Your task to perform on an android device: Open the calendar and show me this week's events Image 0: 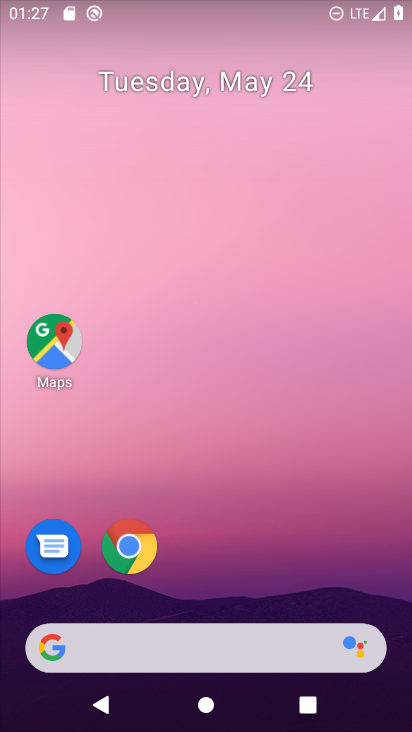
Step 0: drag from (271, 624) to (287, 57)
Your task to perform on an android device: Open the calendar and show me this week's events Image 1: 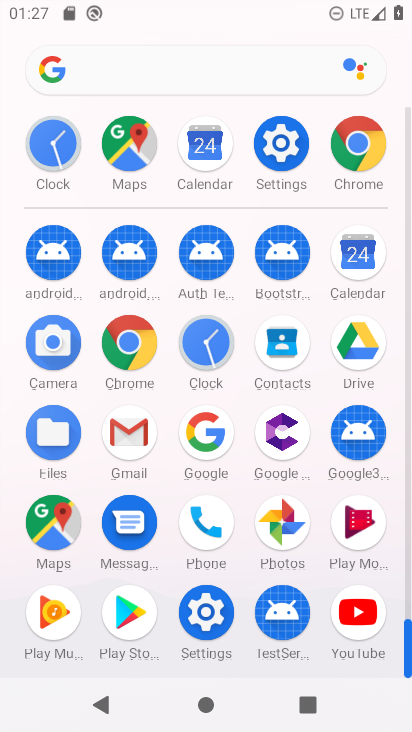
Step 1: click (380, 259)
Your task to perform on an android device: Open the calendar and show me this week's events Image 2: 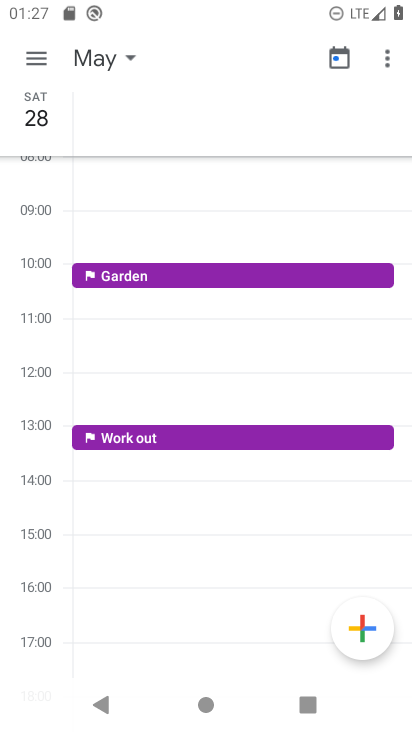
Step 2: click (128, 59)
Your task to perform on an android device: Open the calendar and show me this week's events Image 3: 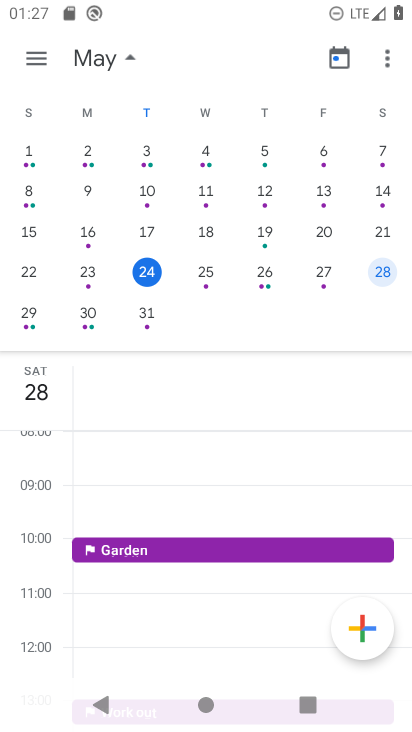
Step 3: click (372, 273)
Your task to perform on an android device: Open the calendar and show me this week's events Image 4: 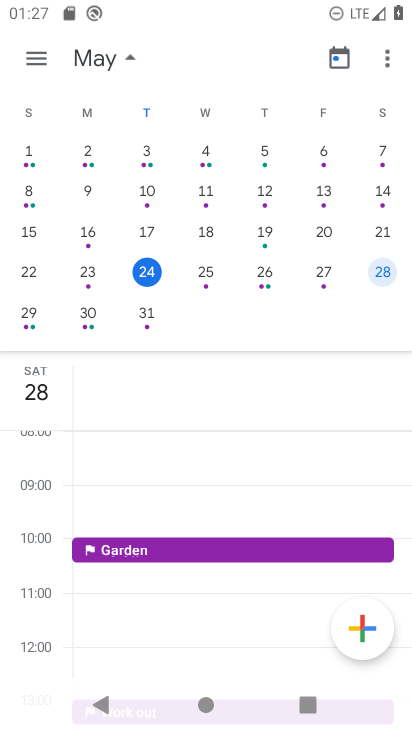
Step 4: task complete